Your task to perform on an android device: Open network settings Image 0: 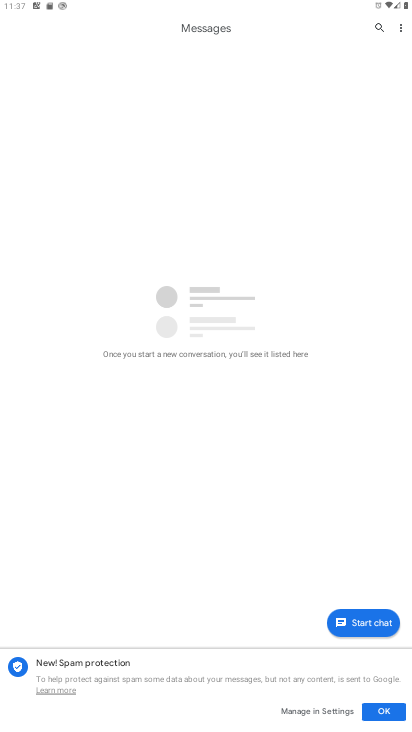
Step 0: press home button
Your task to perform on an android device: Open network settings Image 1: 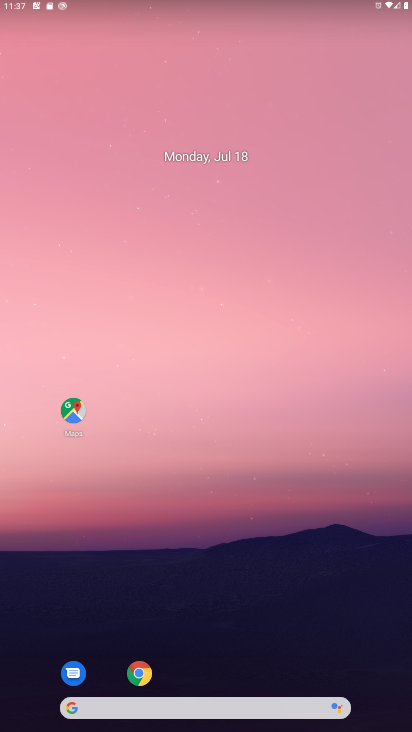
Step 1: drag from (215, 634) to (199, 18)
Your task to perform on an android device: Open network settings Image 2: 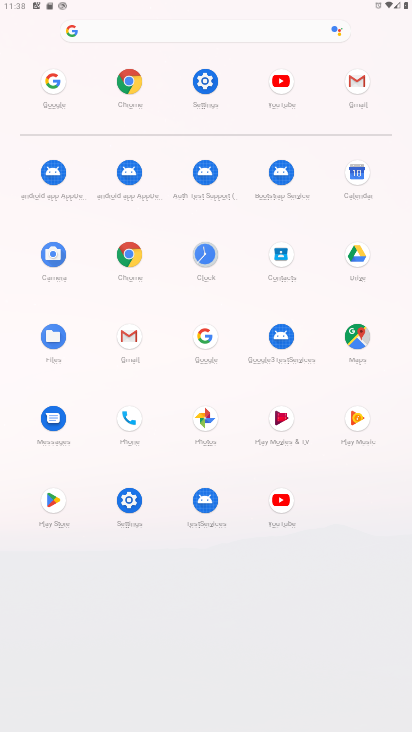
Step 2: click (210, 73)
Your task to perform on an android device: Open network settings Image 3: 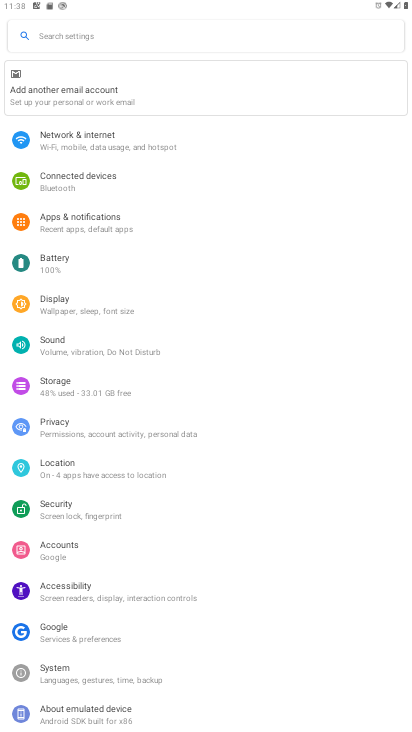
Step 3: click (99, 146)
Your task to perform on an android device: Open network settings Image 4: 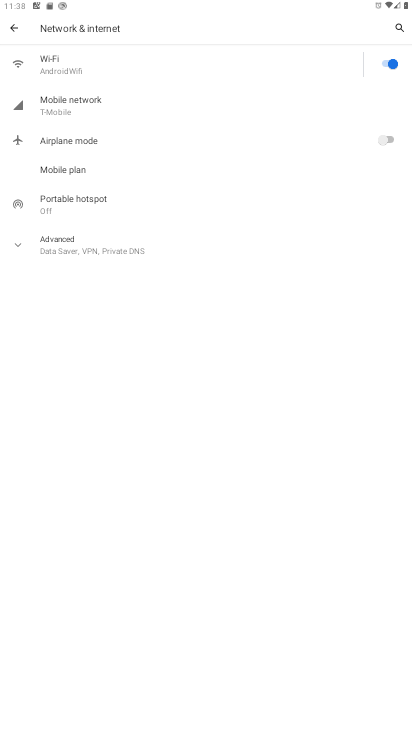
Step 4: task complete